Your task to perform on an android device: clear all cookies in the chrome app Image 0: 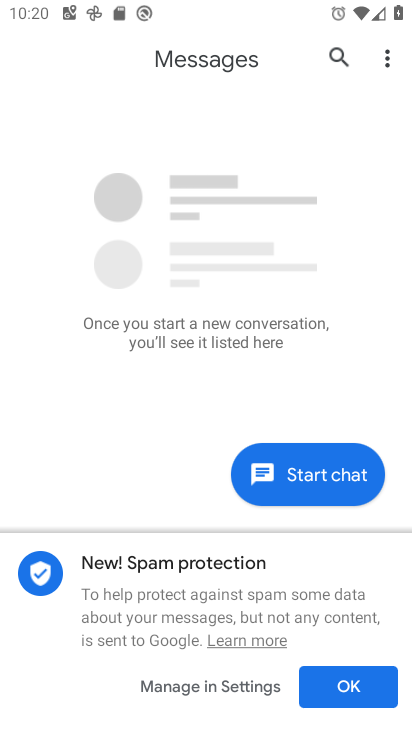
Step 0: press home button
Your task to perform on an android device: clear all cookies in the chrome app Image 1: 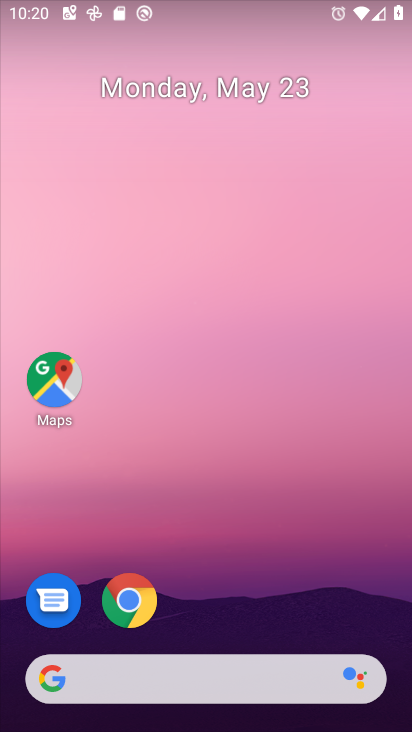
Step 1: click (124, 600)
Your task to perform on an android device: clear all cookies in the chrome app Image 2: 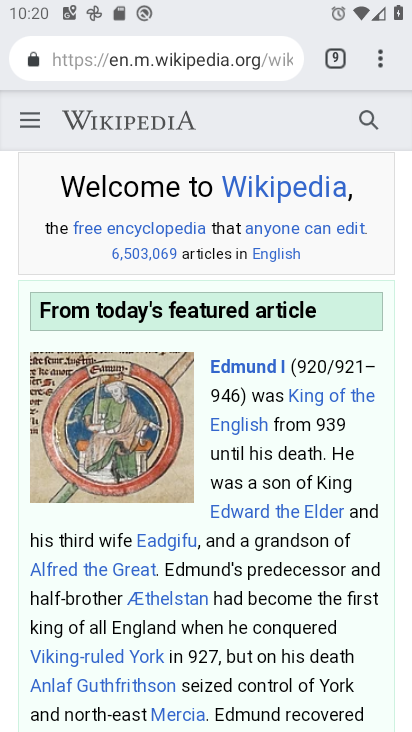
Step 2: click (381, 64)
Your task to perform on an android device: clear all cookies in the chrome app Image 3: 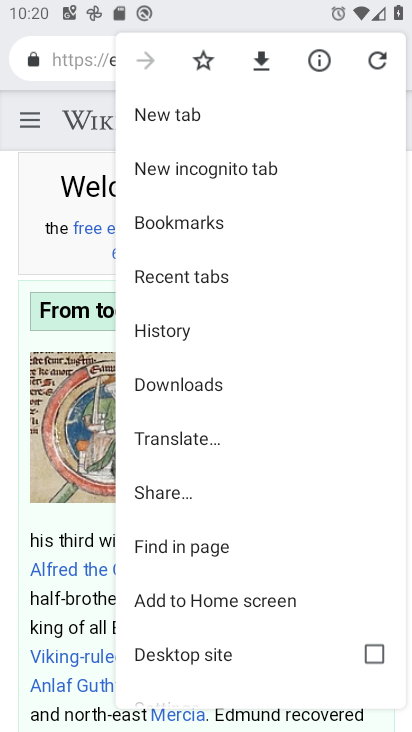
Step 3: click (170, 330)
Your task to perform on an android device: clear all cookies in the chrome app Image 4: 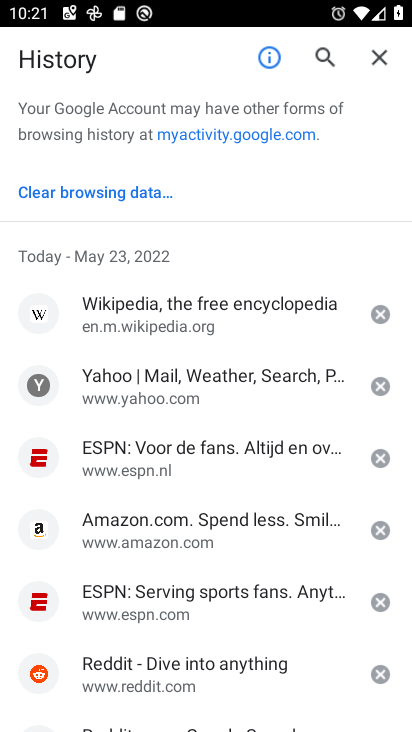
Step 4: click (82, 191)
Your task to perform on an android device: clear all cookies in the chrome app Image 5: 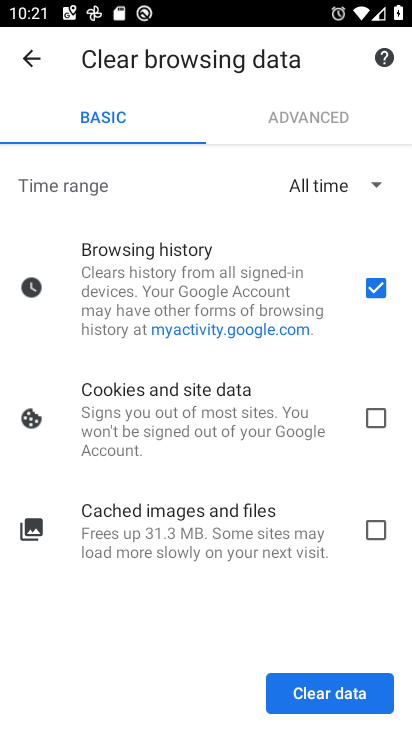
Step 5: click (376, 289)
Your task to perform on an android device: clear all cookies in the chrome app Image 6: 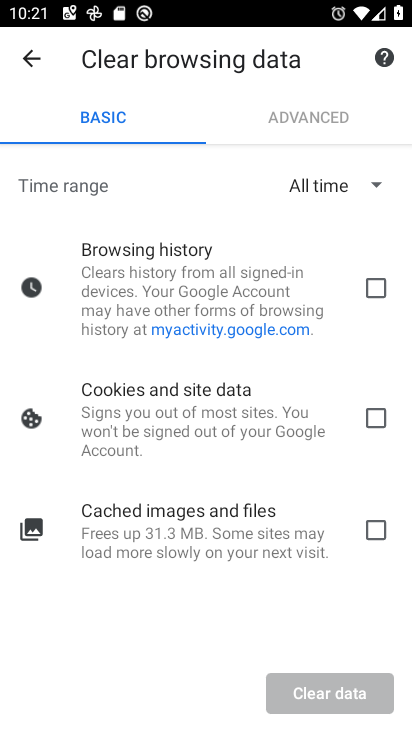
Step 6: click (380, 414)
Your task to perform on an android device: clear all cookies in the chrome app Image 7: 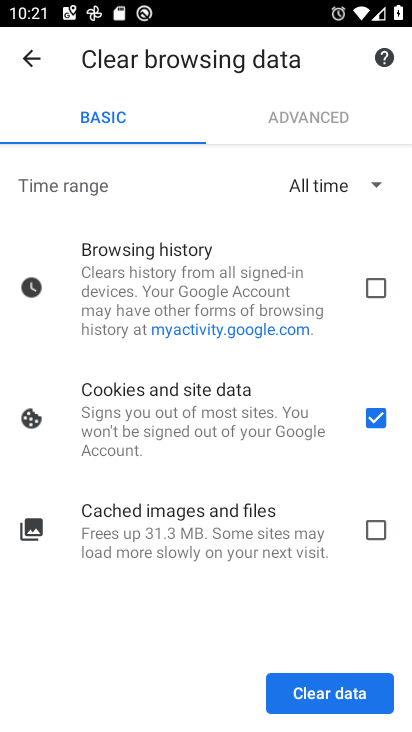
Step 7: click (323, 688)
Your task to perform on an android device: clear all cookies in the chrome app Image 8: 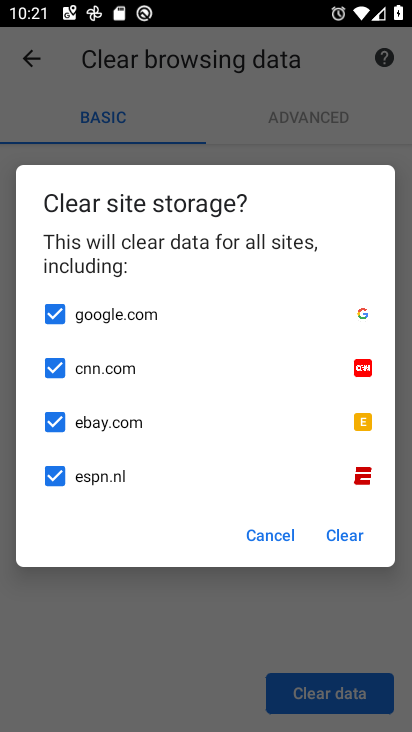
Step 8: click (350, 532)
Your task to perform on an android device: clear all cookies in the chrome app Image 9: 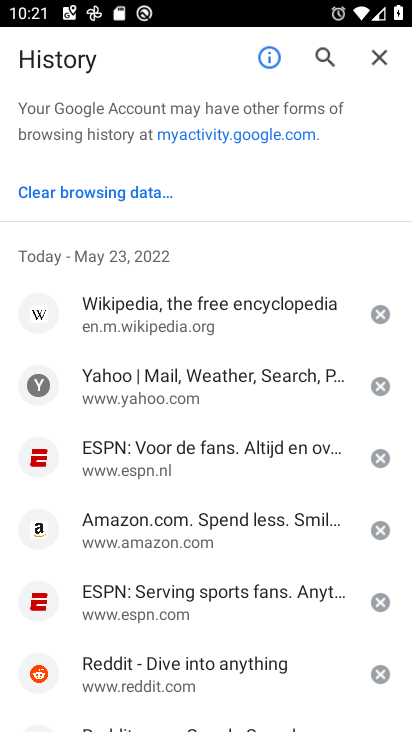
Step 9: task complete